Your task to perform on an android device: Open Google Maps Image 0: 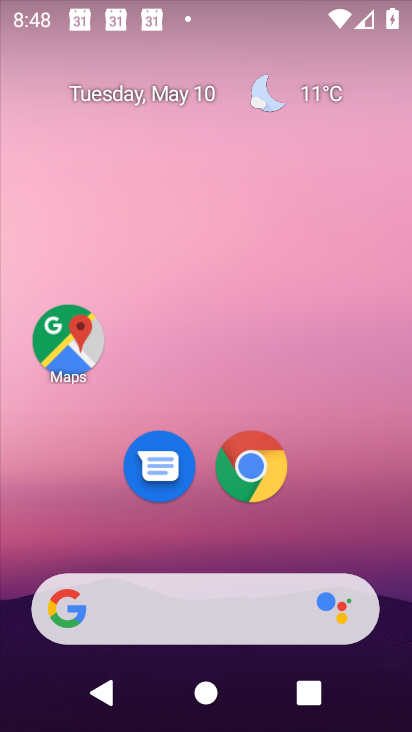
Step 0: click (78, 329)
Your task to perform on an android device: Open Google Maps Image 1: 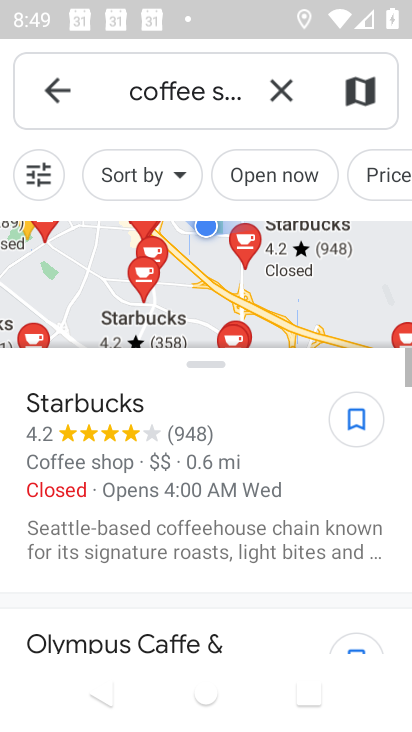
Step 1: click (64, 102)
Your task to perform on an android device: Open Google Maps Image 2: 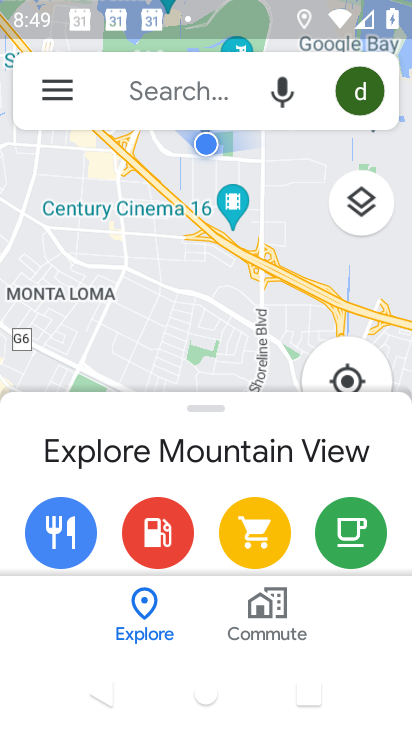
Step 2: task complete